Your task to perform on an android device: Go to display settings Image 0: 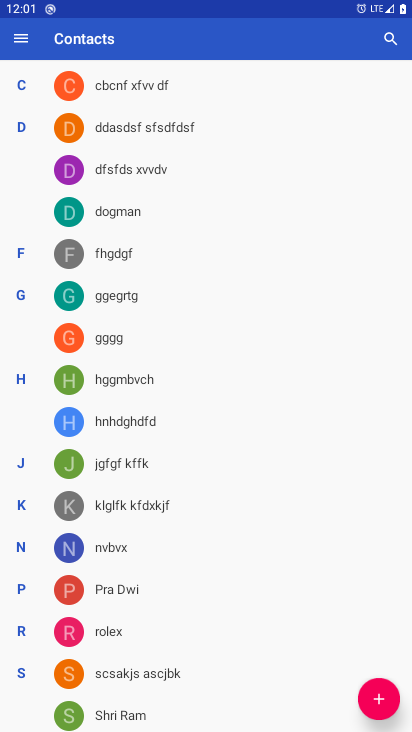
Step 0: press home button
Your task to perform on an android device: Go to display settings Image 1: 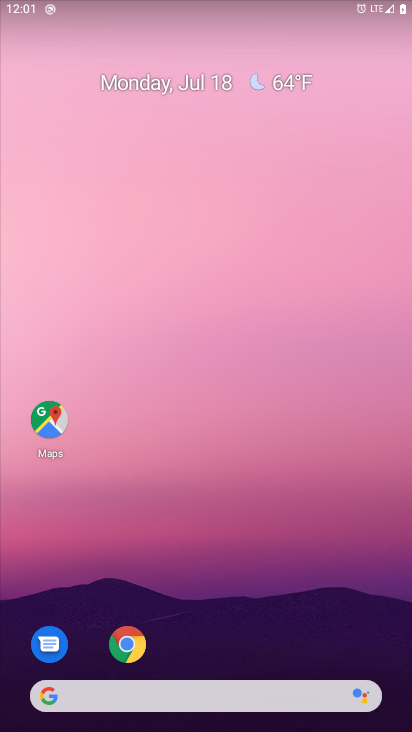
Step 1: drag from (246, 607) to (281, 53)
Your task to perform on an android device: Go to display settings Image 2: 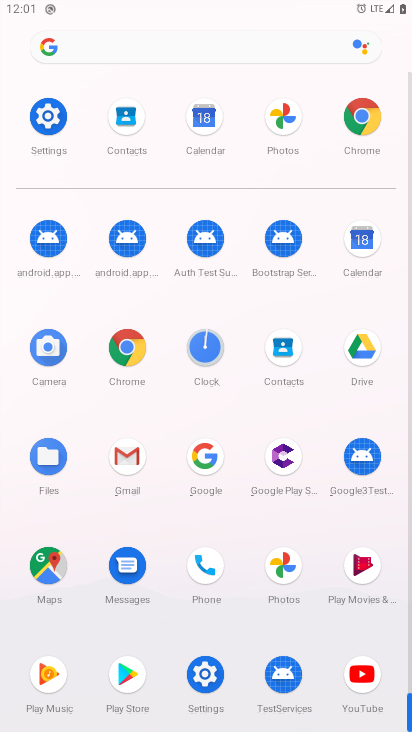
Step 2: click (49, 115)
Your task to perform on an android device: Go to display settings Image 3: 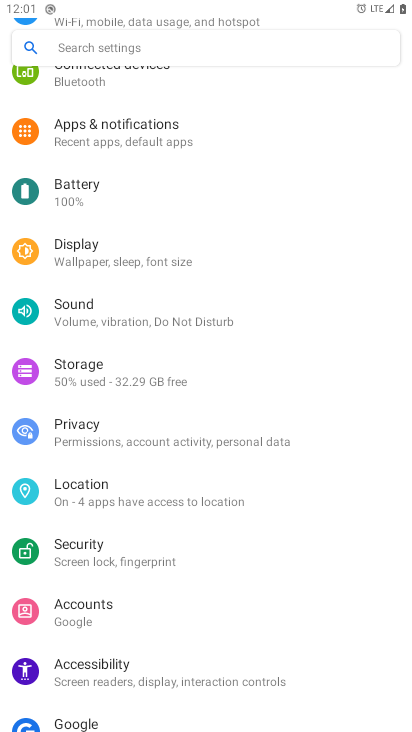
Step 3: click (77, 241)
Your task to perform on an android device: Go to display settings Image 4: 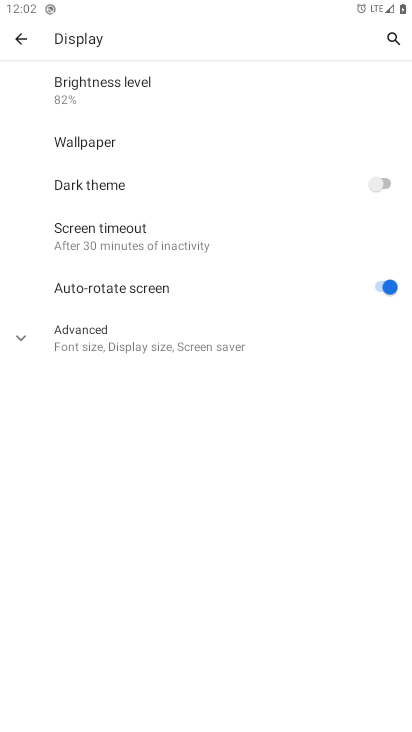
Step 4: task complete